Your task to perform on an android device: delete a single message in the gmail app Image 0: 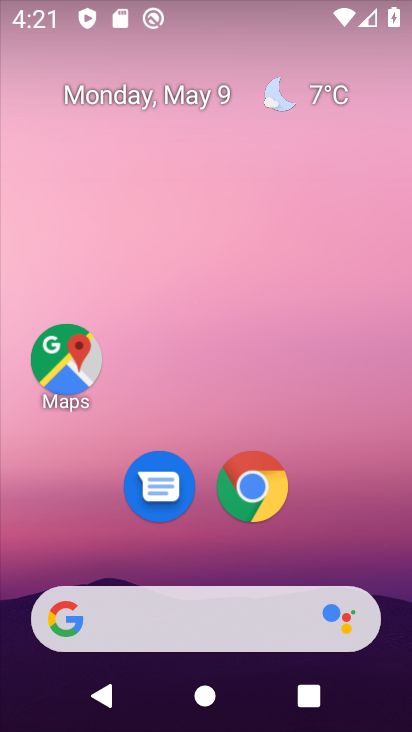
Step 0: drag from (201, 527) to (230, 25)
Your task to perform on an android device: delete a single message in the gmail app Image 1: 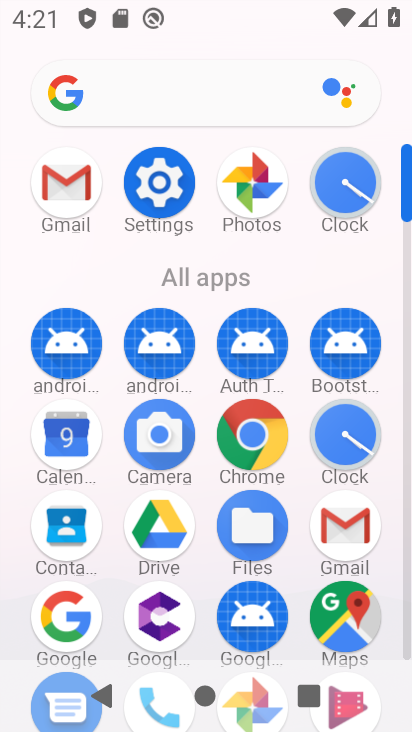
Step 1: click (337, 525)
Your task to perform on an android device: delete a single message in the gmail app Image 2: 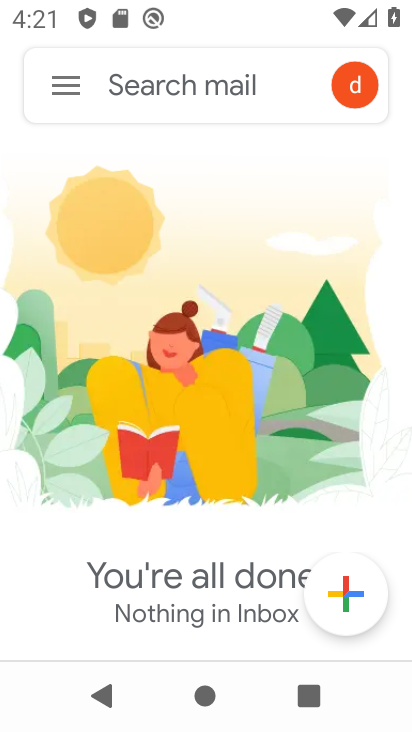
Step 2: task complete